Your task to perform on an android device: Open CNN.com Image 0: 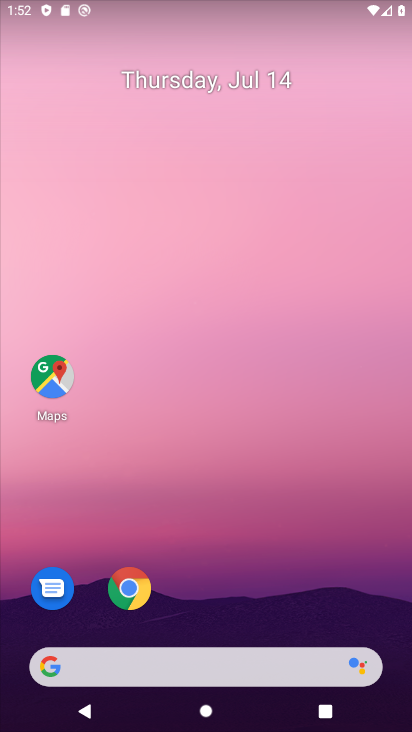
Step 0: click (137, 571)
Your task to perform on an android device: Open CNN.com Image 1: 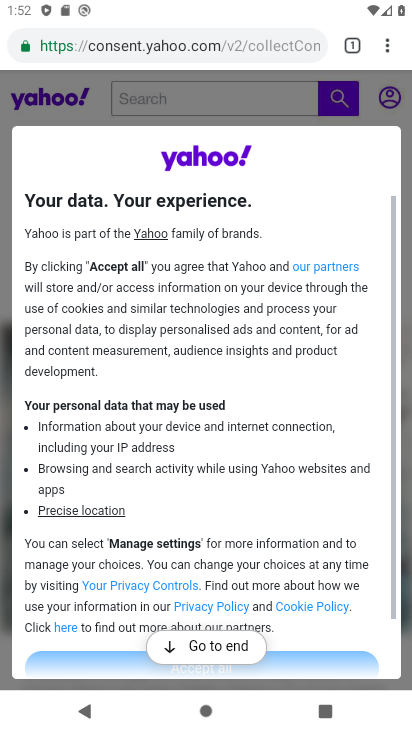
Step 1: click (250, 43)
Your task to perform on an android device: Open CNN.com Image 2: 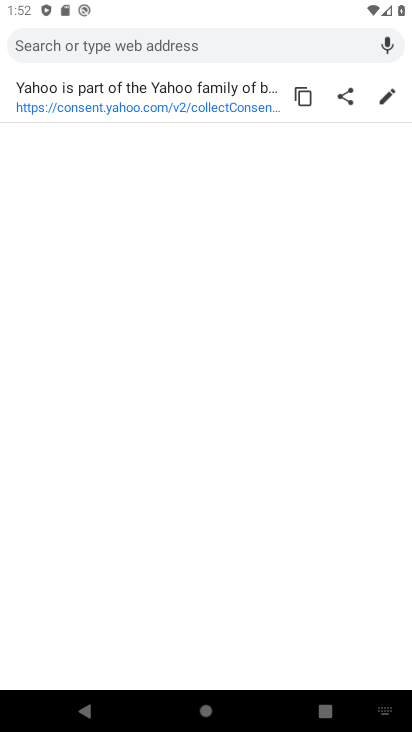
Step 2: type "CNN.com"
Your task to perform on an android device: Open CNN.com Image 3: 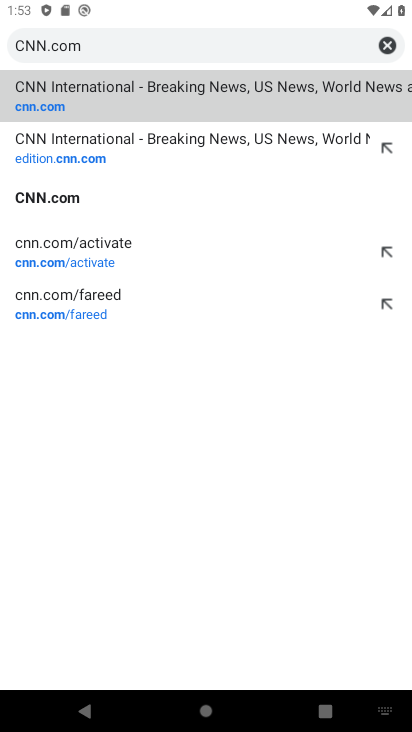
Step 3: click (170, 101)
Your task to perform on an android device: Open CNN.com Image 4: 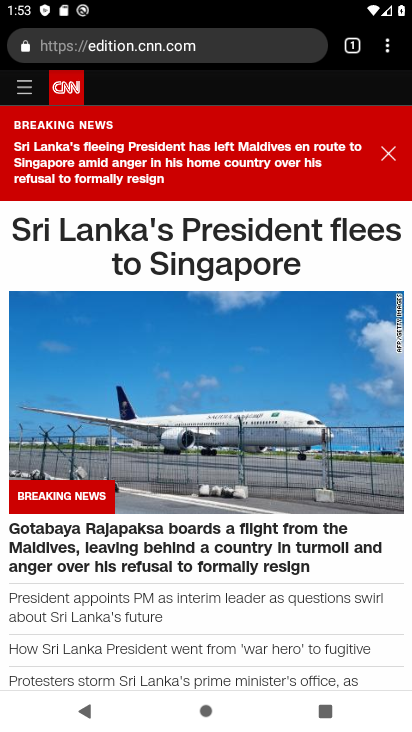
Step 4: task complete